Your task to perform on an android device: Open Maps and search for coffee Image 0: 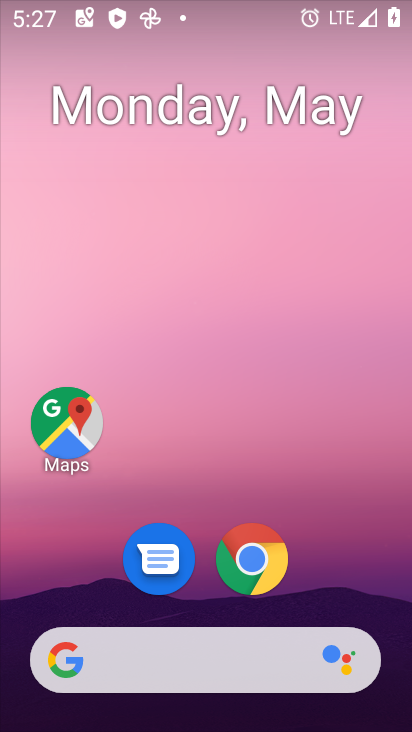
Step 0: drag from (268, 655) to (307, 31)
Your task to perform on an android device: Open Maps and search for coffee Image 1: 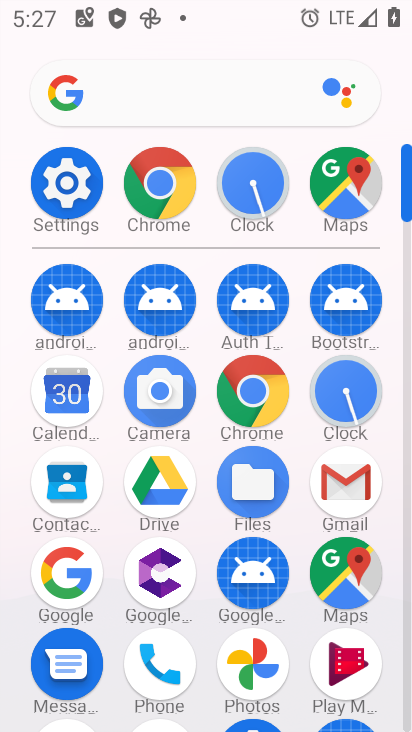
Step 1: click (348, 576)
Your task to perform on an android device: Open Maps and search for coffee Image 2: 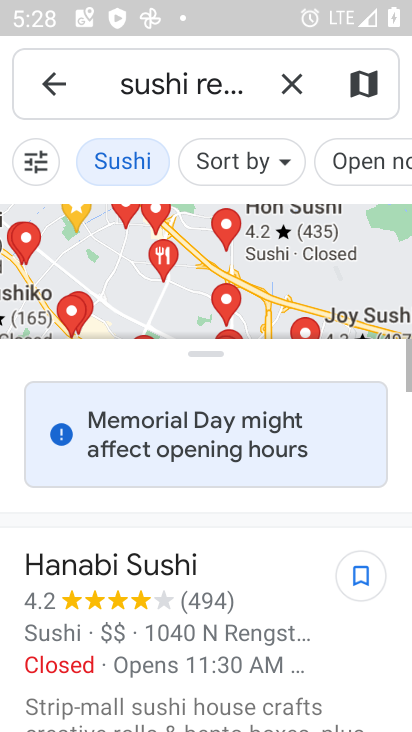
Step 2: press back button
Your task to perform on an android device: Open Maps and search for coffee Image 3: 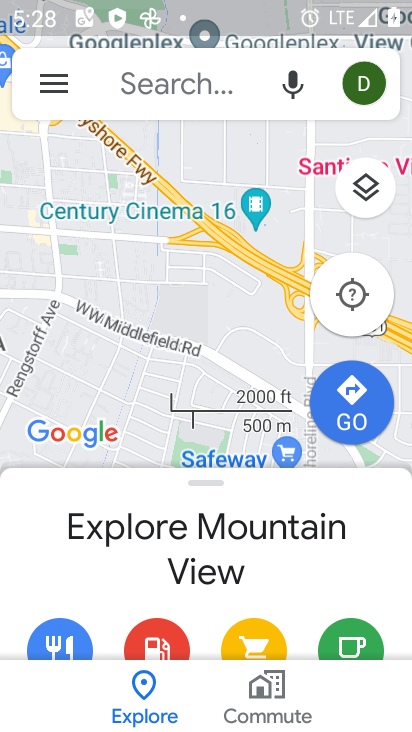
Step 3: click (249, 88)
Your task to perform on an android device: Open Maps and search for coffee Image 4: 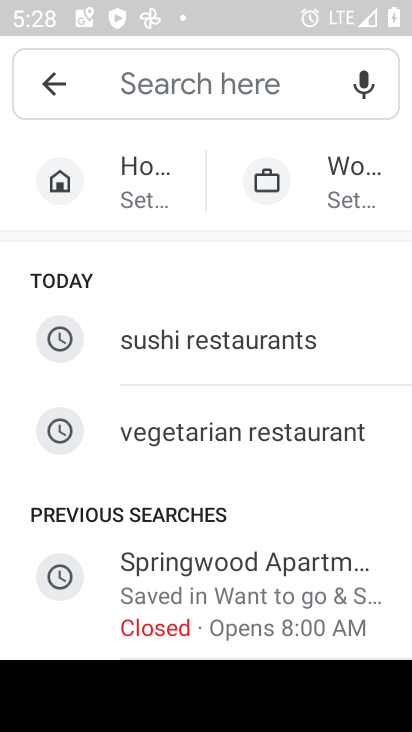
Step 4: type "coffee"
Your task to perform on an android device: Open Maps and search for coffee Image 5: 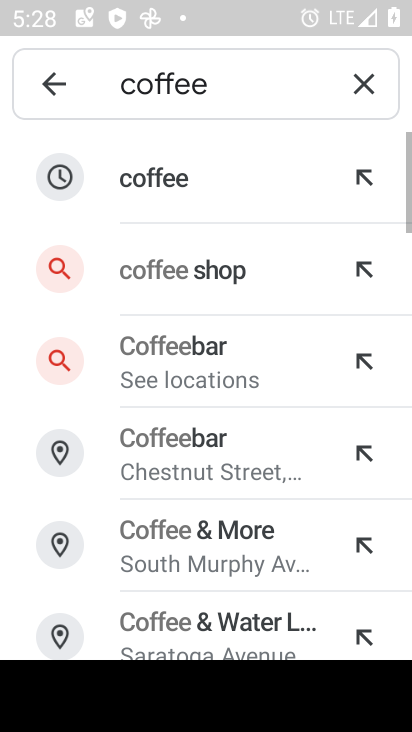
Step 5: click (207, 196)
Your task to perform on an android device: Open Maps and search for coffee Image 6: 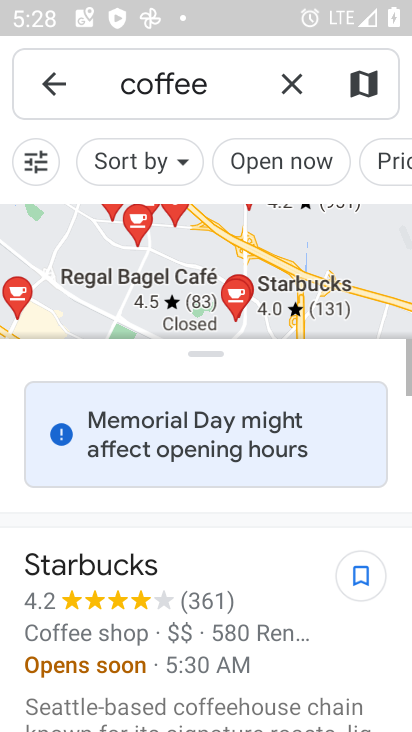
Step 6: task complete